Your task to perform on an android device: set the timer Image 0: 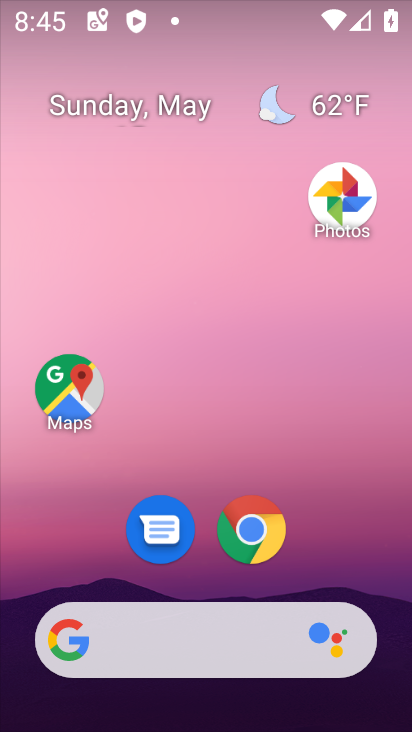
Step 0: drag from (345, 497) to (291, 153)
Your task to perform on an android device: set the timer Image 1: 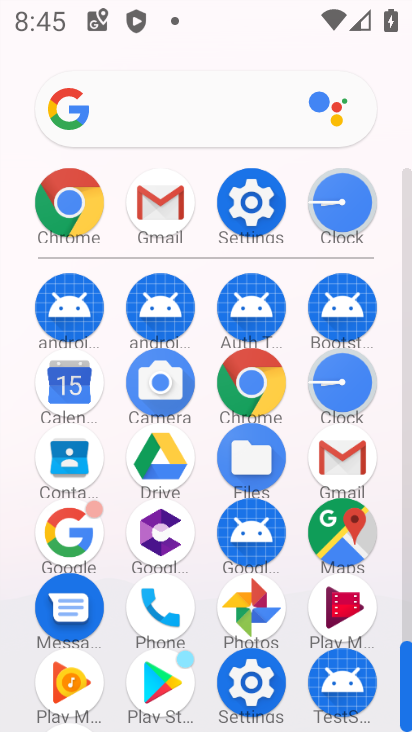
Step 1: click (337, 396)
Your task to perform on an android device: set the timer Image 2: 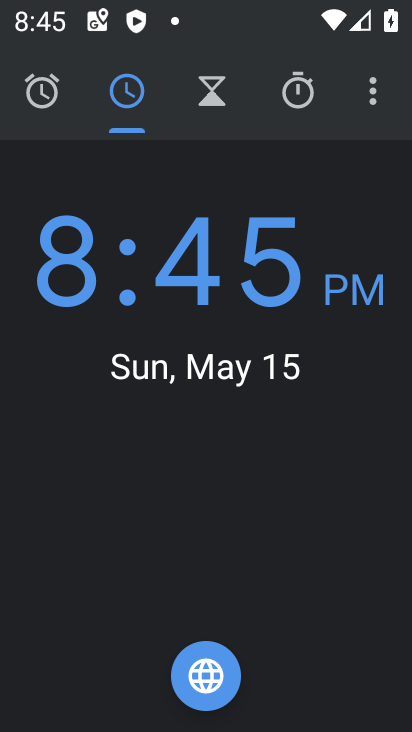
Step 2: click (233, 111)
Your task to perform on an android device: set the timer Image 3: 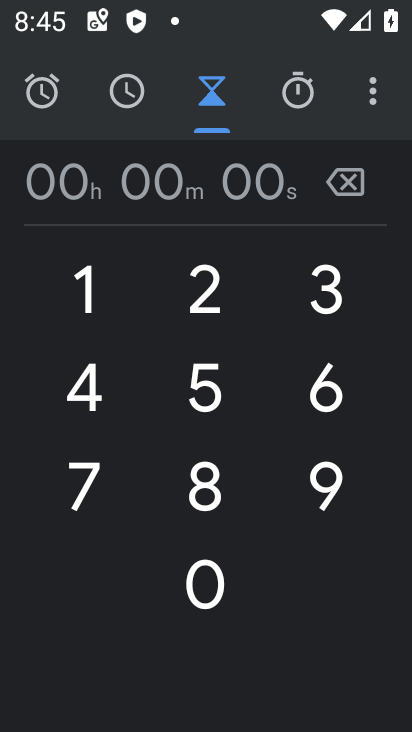
Step 3: click (95, 273)
Your task to perform on an android device: set the timer Image 4: 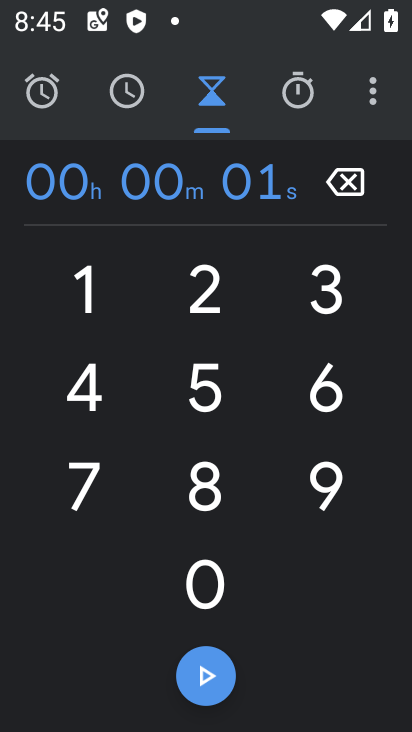
Step 4: click (204, 397)
Your task to perform on an android device: set the timer Image 5: 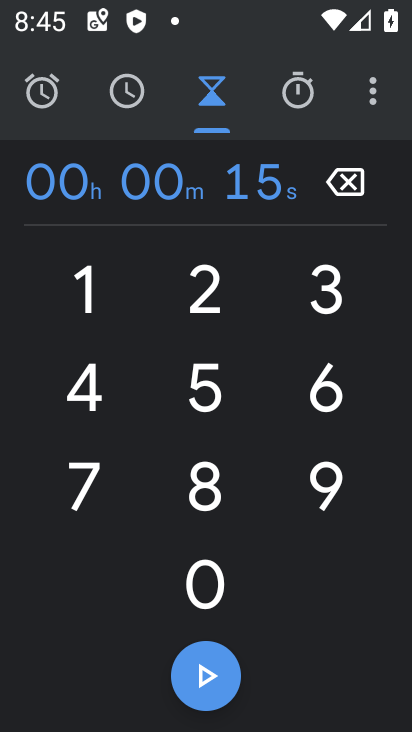
Step 5: click (204, 675)
Your task to perform on an android device: set the timer Image 6: 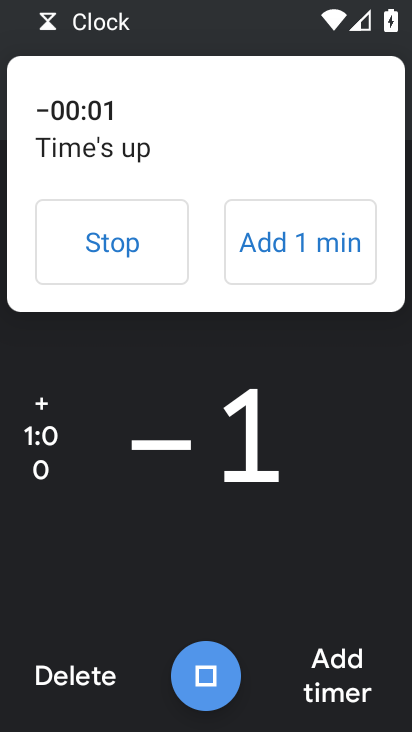
Step 6: click (78, 241)
Your task to perform on an android device: set the timer Image 7: 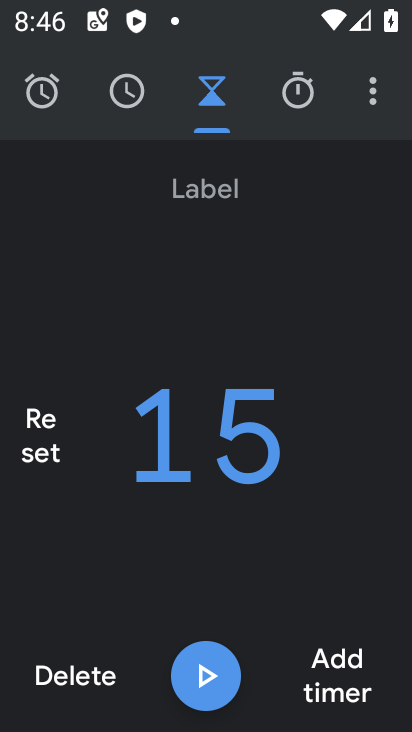
Step 7: task complete